Your task to perform on an android device: Search for Italian restaurants on Maps Image 0: 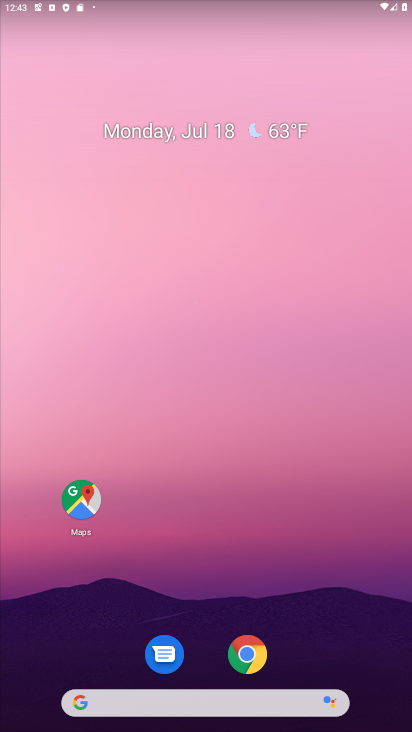
Step 0: click (56, 492)
Your task to perform on an android device: Search for Italian restaurants on Maps Image 1: 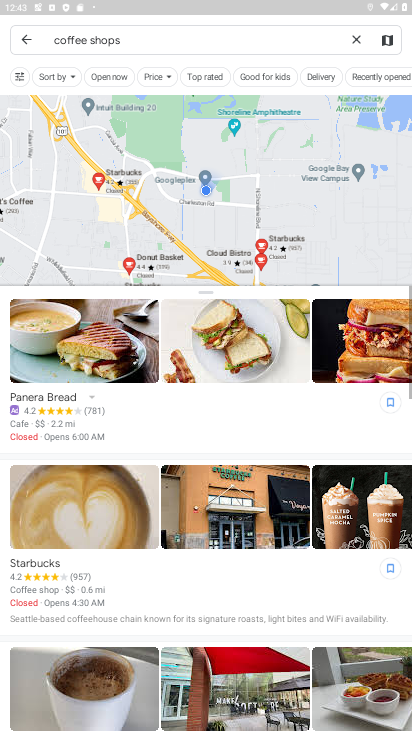
Step 1: click (360, 39)
Your task to perform on an android device: Search for Italian restaurants on Maps Image 2: 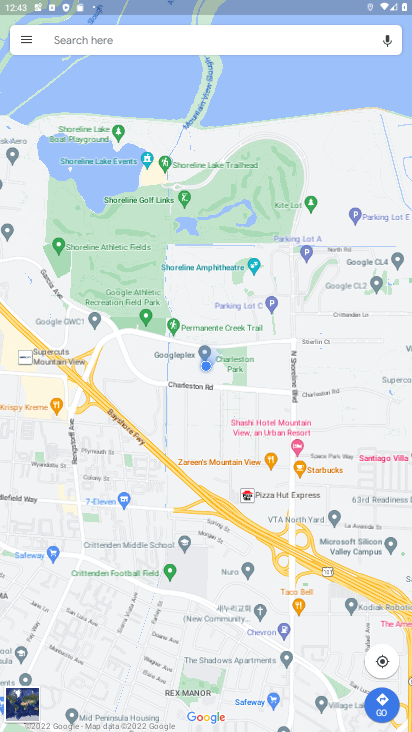
Step 2: click (281, 43)
Your task to perform on an android device: Search for Italian restaurants on Maps Image 3: 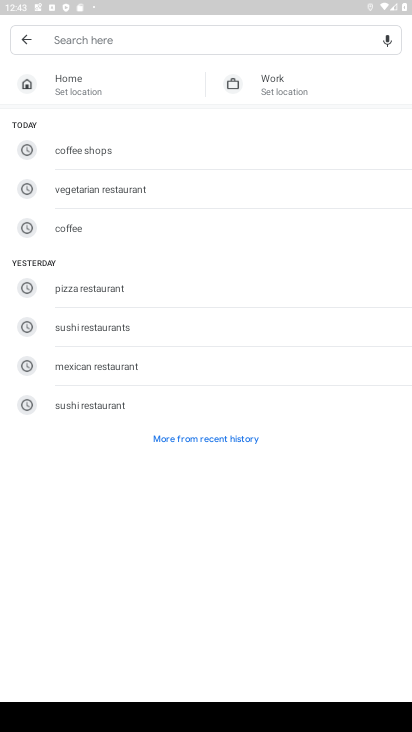
Step 3: click (145, 41)
Your task to perform on an android device: Search for Italian restaurants on Maps Image 4: 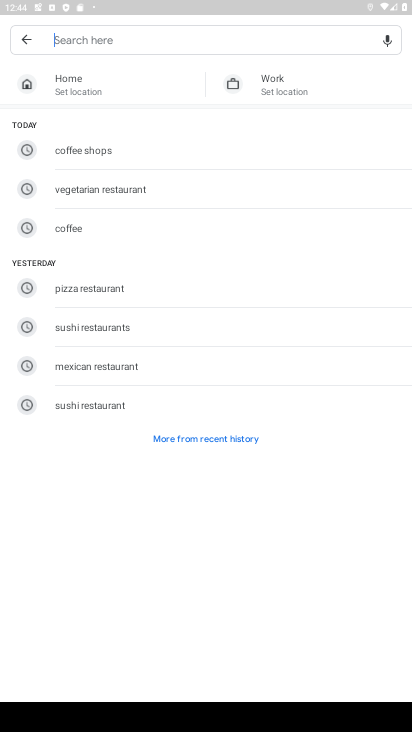
Step 4: type " Italian restaurants"
Your task to perform on an android device: Search for Italian restaurants on Maps Image 5: 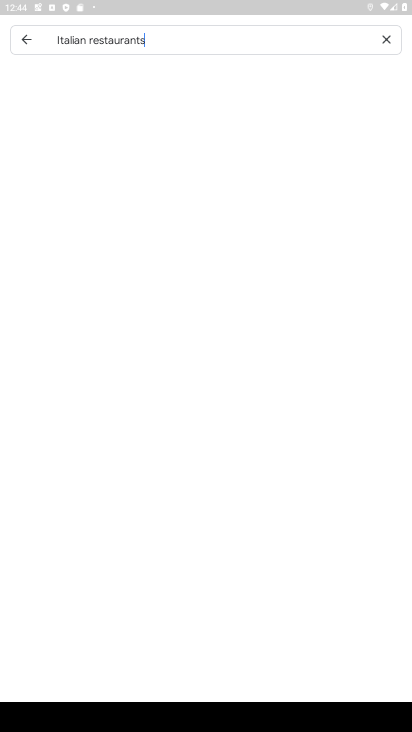
Step 5: type ""
Your task to perform on an android device: Search for Italian restaurants on Maps Image 6: 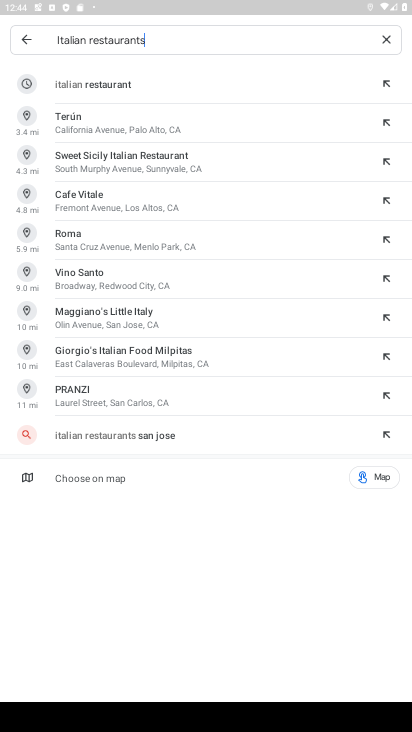
Step 6: click (216, 93)
Your task to perform on an android device: Search for Italian restaurants on Maps Image 7: 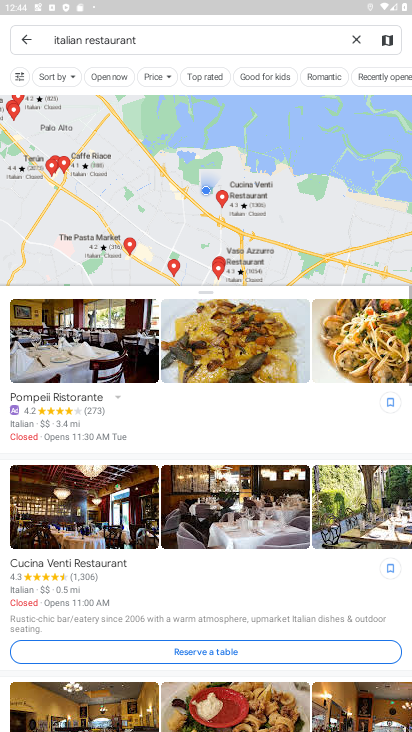
Step 7: task complete